Your task to perform on an android device: find snoozed emails in the gmail app Image 0: 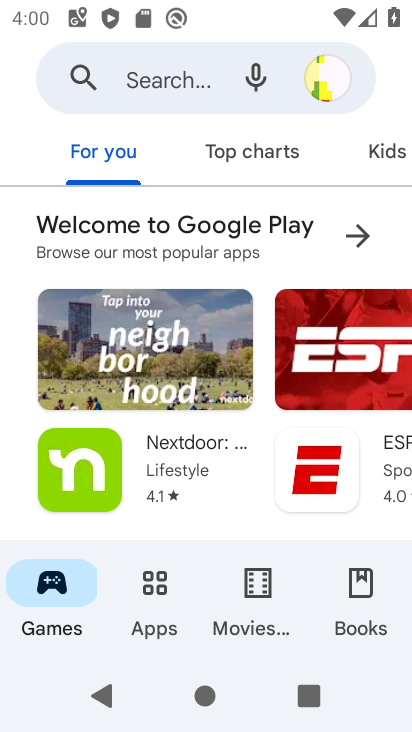
Step 0: drag from (213, 576) to (283, 0)
Your task to perform on an android device: find snoozed emails in the gmail app Image 1: 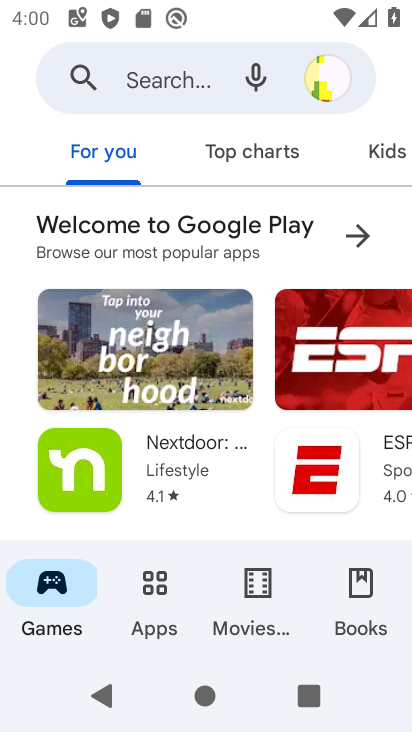
Step 1: drag from (240, 349) to (291, 93)
Your task to perform on an android device: find snoozed emails in the gmail app Image 2: 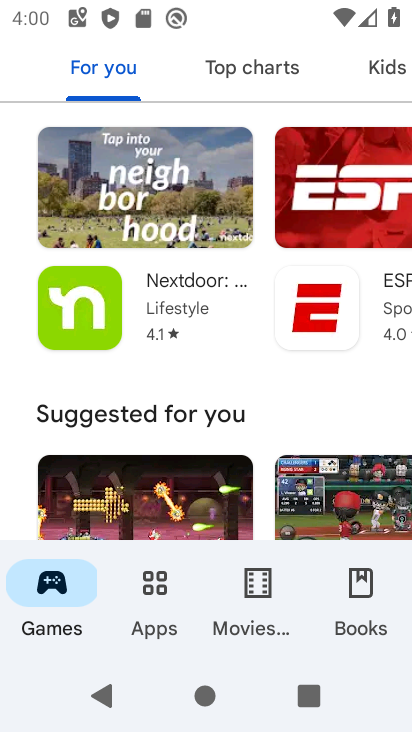
Step 2: drag from (219, 465) to (274, 53)
Your task to perform on an android device: find snoozed emails in the gmail app Image 3: 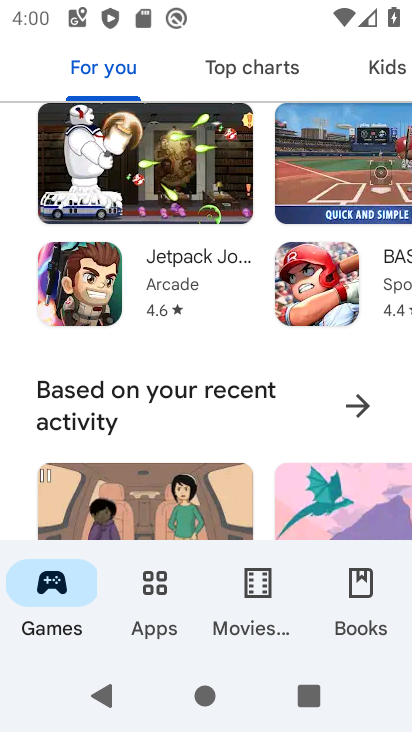
Step 3: drag from (241, 508) to (237, 178)
Your task to perform on an android device: find snoozed emails in the gmail app Image 4: 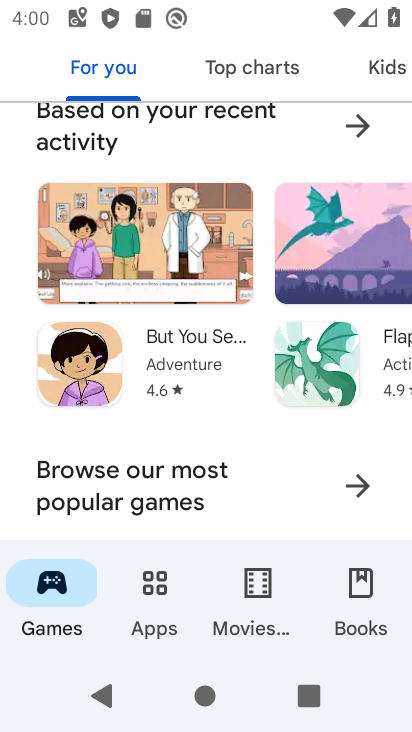
Step 4: drag from (232, 143) to (189, 553)
Your task to perform on an android device: find snoozed emails in the gmail app Image 5: 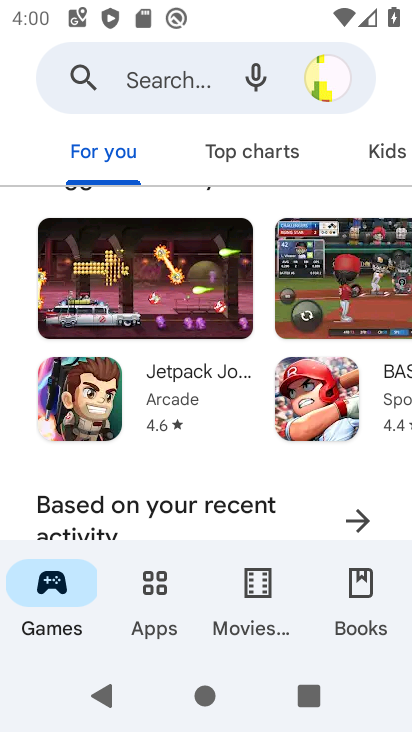
Step 5: press home button
Your task to perform on an android device: find snoozed emails in the gmail app Image 6: 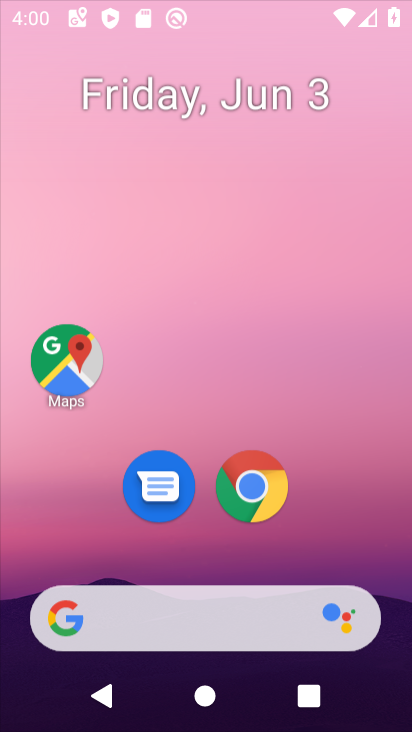
Step 6: drag from (166, 598) to (279, 144)
Your task to perform on an android device: find snoozed emails in the gmail app Image 7: 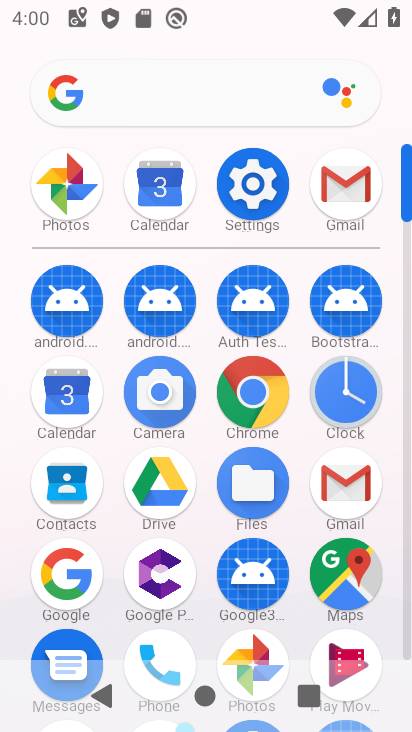
Step 7: click (343, 487)
Your task to perform on an android device: find snoozed emails in the gmail app Image 8: 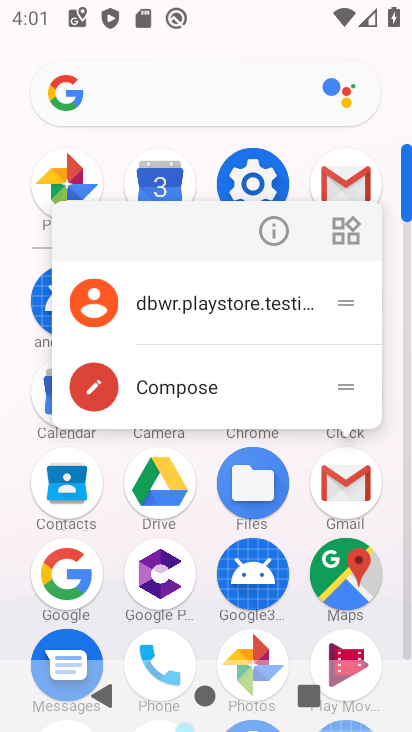
Step 8: click (272, 238)
Your task to perform on an android device: find snoozed emails in the gmail app Image 9: 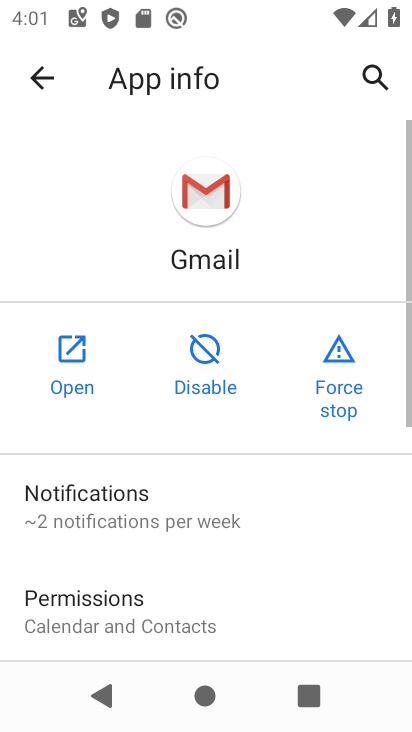
Step 9: click (65, 341)
Your task to perform on an android device: find snoozed emails in the gmail app Image 10: 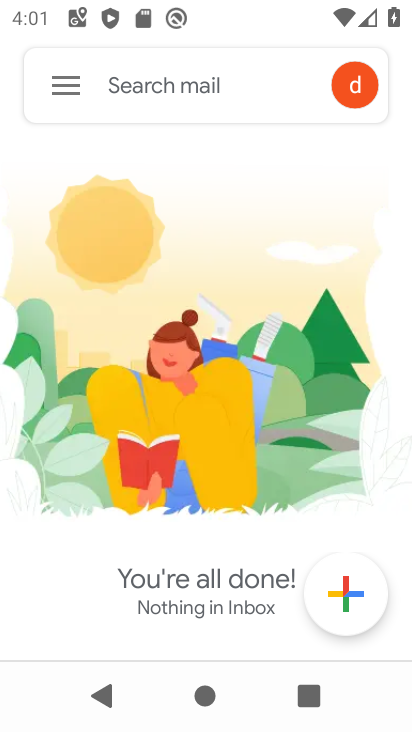
Step 10: click (43, 81)
Your task to perform on an android device: find snoozed emails in the gmail app Image 11: 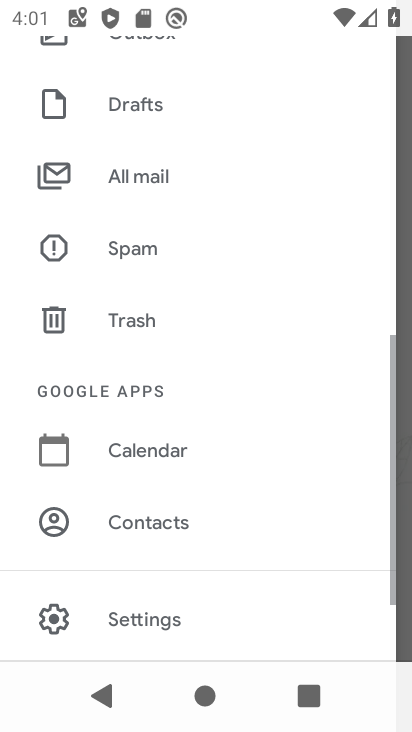
Step 11: drag from (188, 194) to (216, 726)
Your task to perform on an android device: find snoozed emails in the gmail app Image 12: 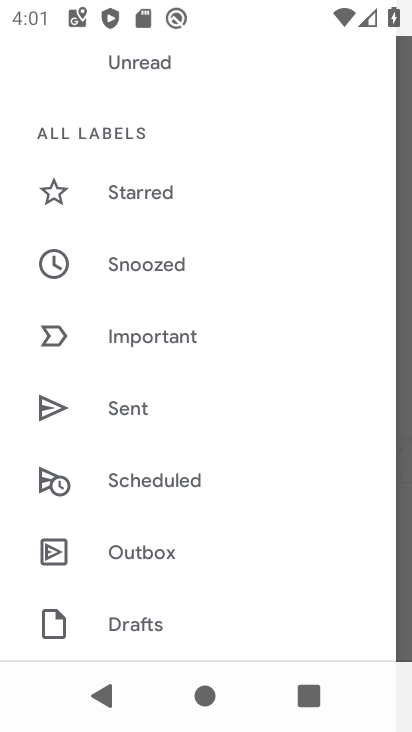
Step 12: drag from (177, 235) to (244, 692)
Your task to perform on an android device: find snoozed emails in the gmail app Image 13: 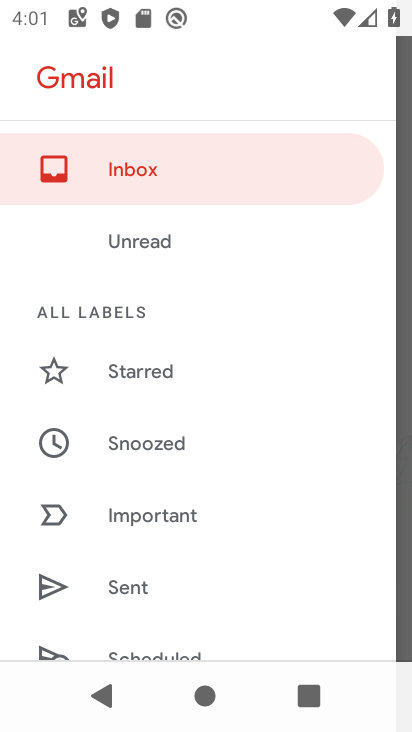
Step 13: click (162, 446)
Your task to perform on an android device: find snoozed emails in the gmail app Image 14: 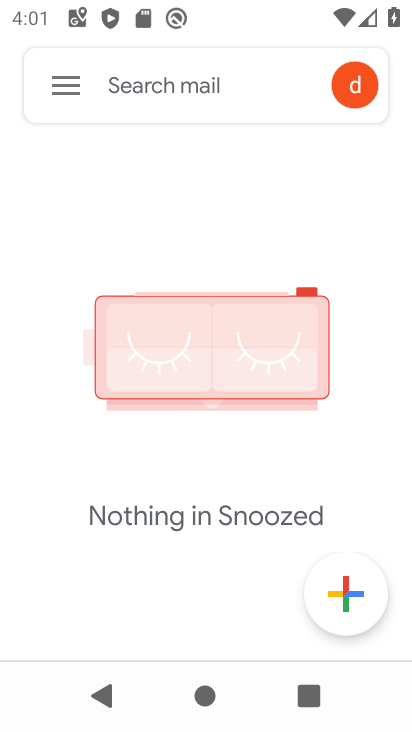
Step 14: task complete